Your task to perform on an android device: Open settings Image 0: 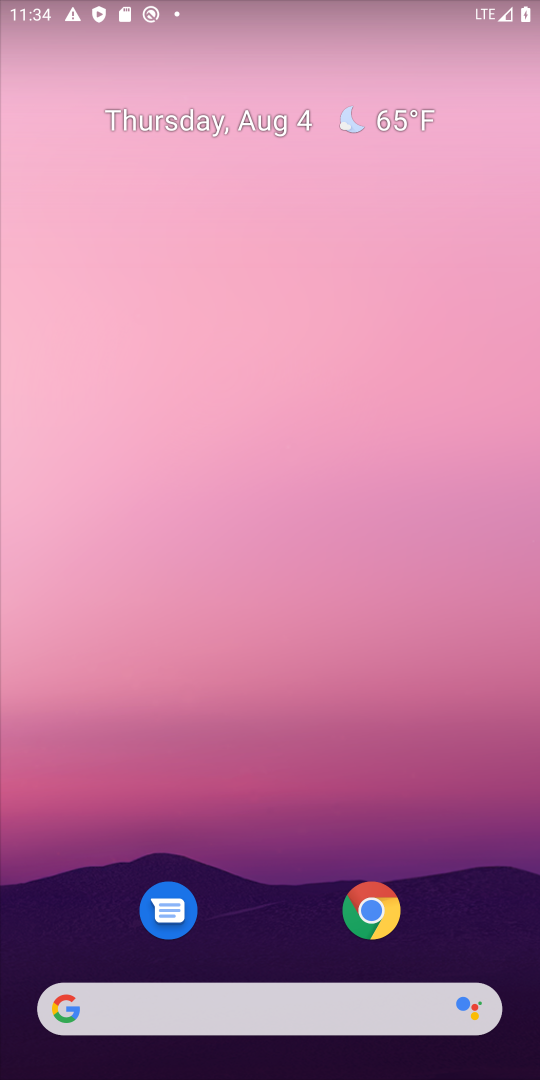
Step 0: press home button
Your task to perform on an android device: Open settings Image 1: 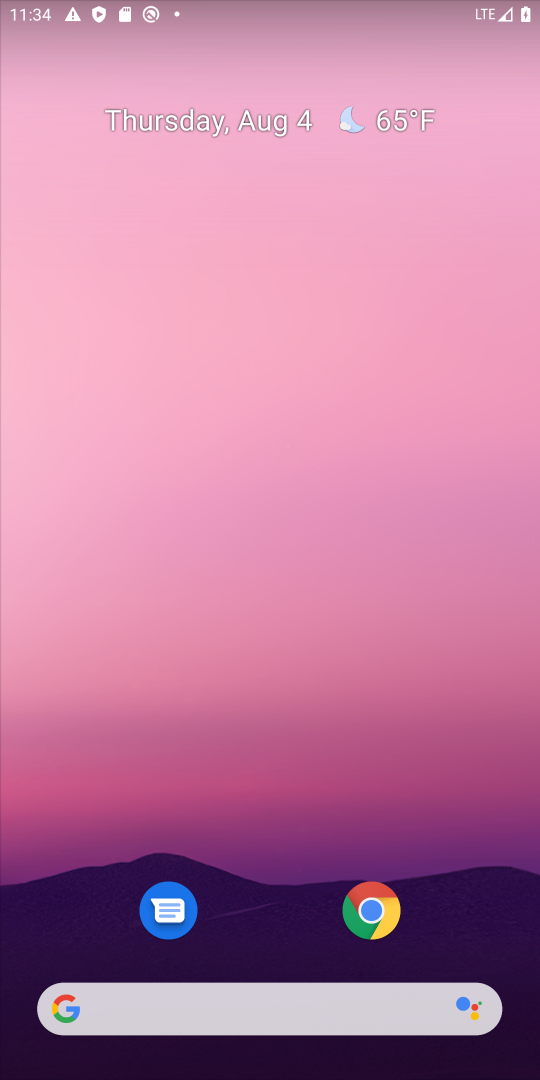
Step 1: drag from (265, 957) to (257, 325)
Your task to perform on an android device: Open settings Image 2: 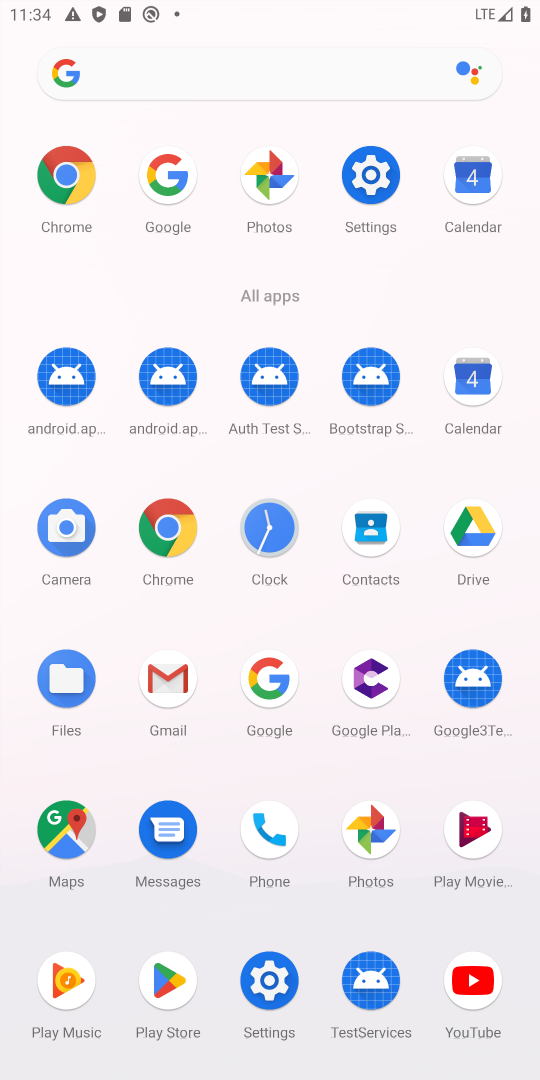
Step 2: click (371, 182)
Your task to perform on an android device: Open settings Image 3: 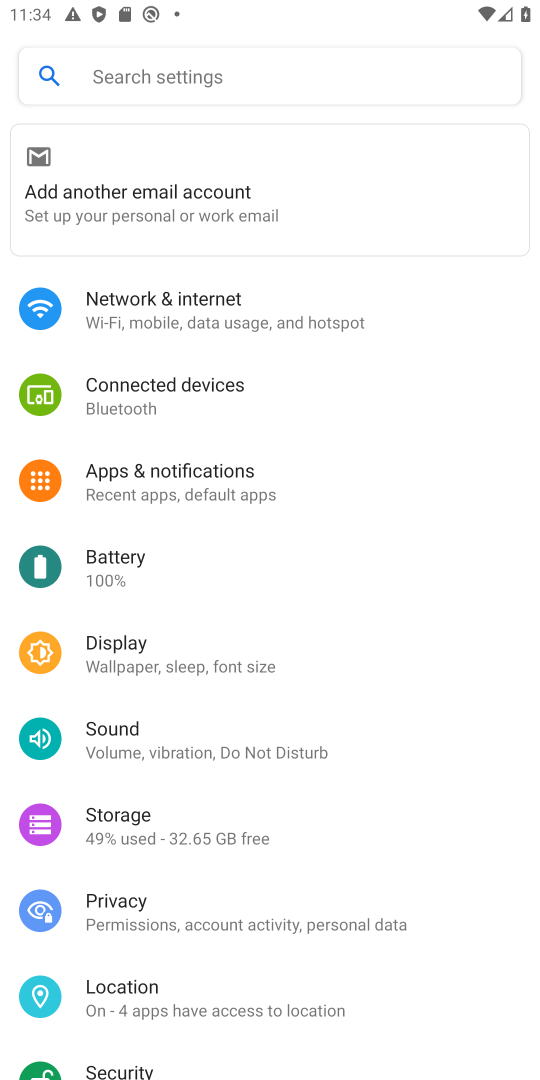
Step 3: task complete